Your task to perform on an android device: uninstall "Viber Messenger" Image 0: 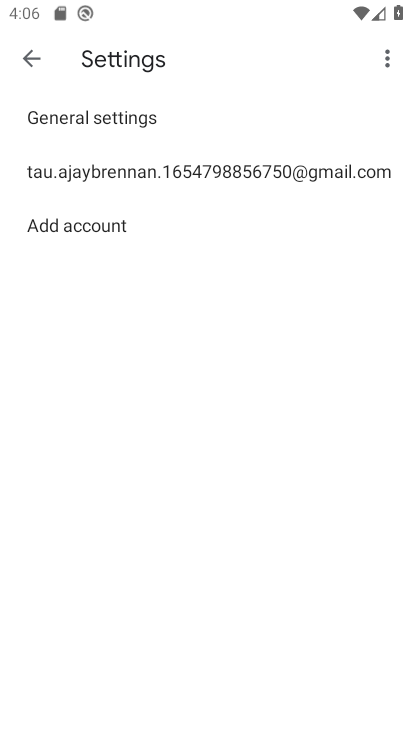
Step 0: press home button
Your task to perform on an android device: uninstall "Viber Messenger" Image 1: 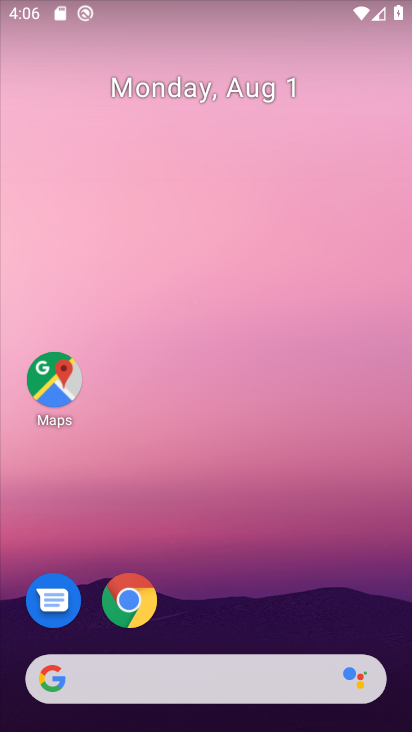
Step 1: drag from (356, 587) to (282, 0)
Your task to perform on an android device: uninstall "Viber Messenger" Image 2: 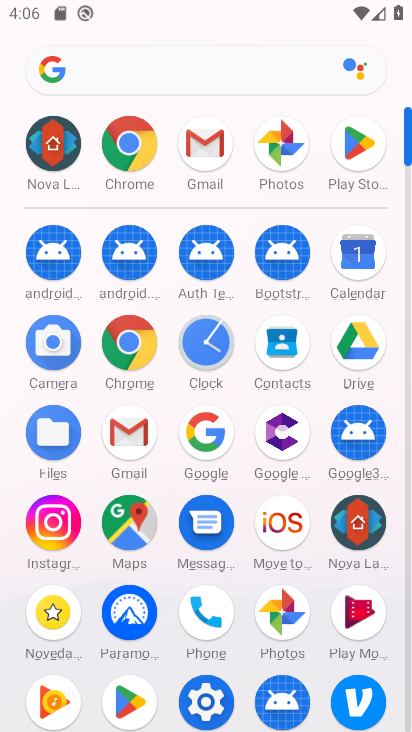
Step 2: click (363, 142)
Your task to perform on an android device: uninstall "Viber Messenger" Image 3: 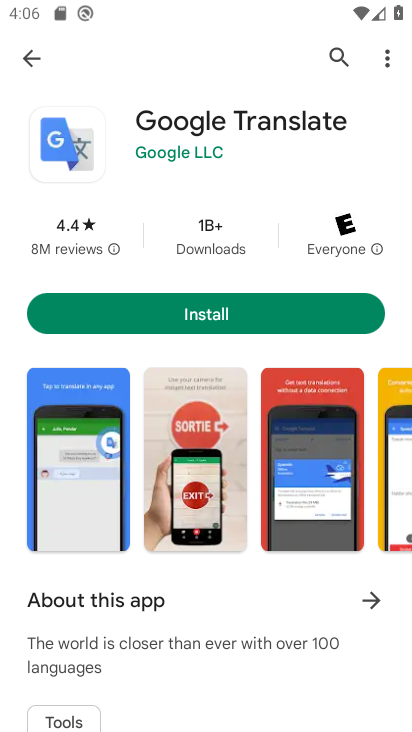
Step 3: click (321, 59)
Your task to perform on an android device: uninstall "Viber Messenger" Image 4: 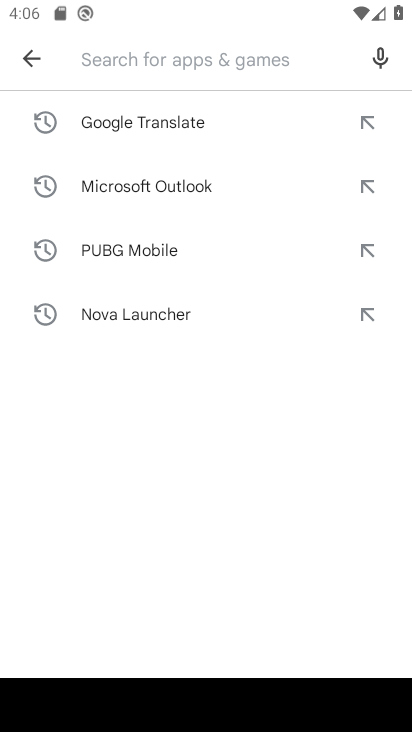
Step 4: type "Viber Messenger"
Your task to perform on an android device: uninstall "Viber Messenger" Image 5: 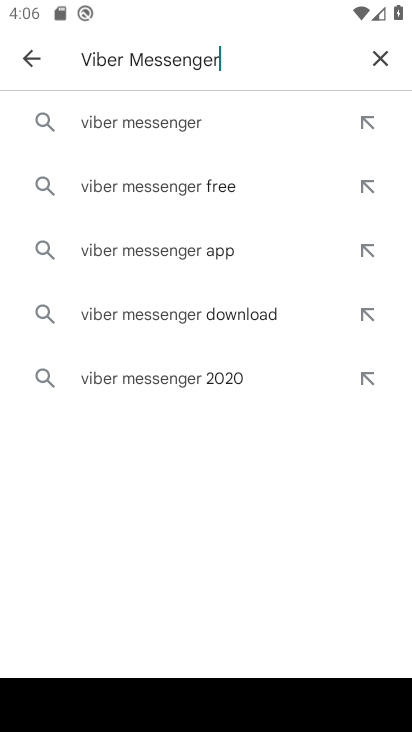
Step 5: press enter
Your task to perform on an android device: uninstall "Viber Messenger" Image 6: 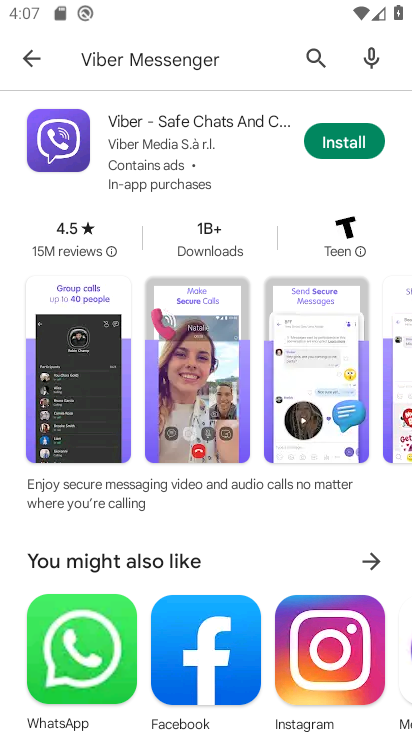
Step 6: task complete